Your task to perform on an android device: open app "Google Home" (install if not already installed) Image 0: 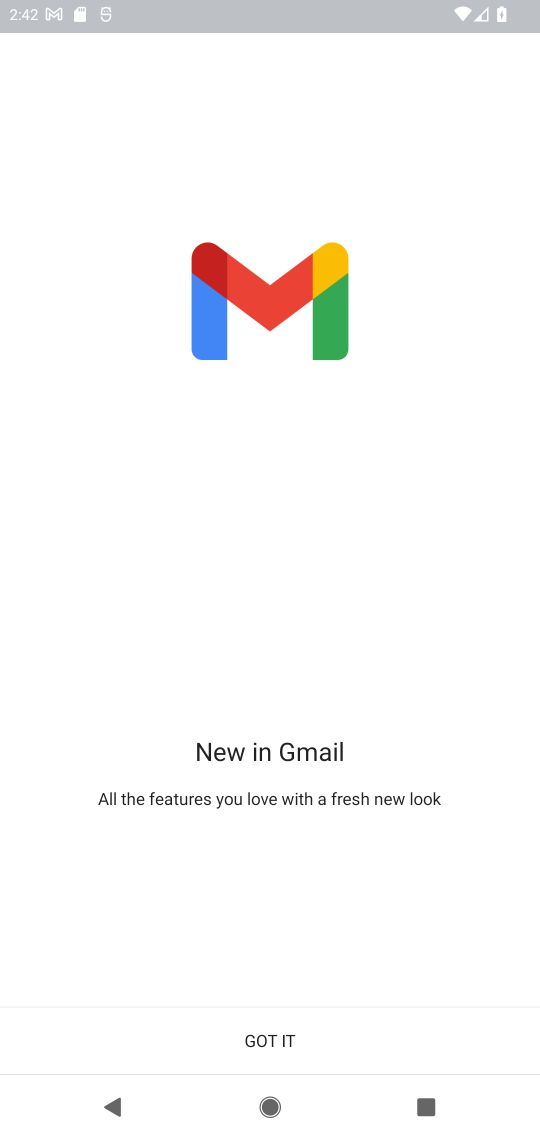
Step 0: press home button
Your task to perform on an android device: open app "Google Home" (install if not already installed) Image 1: 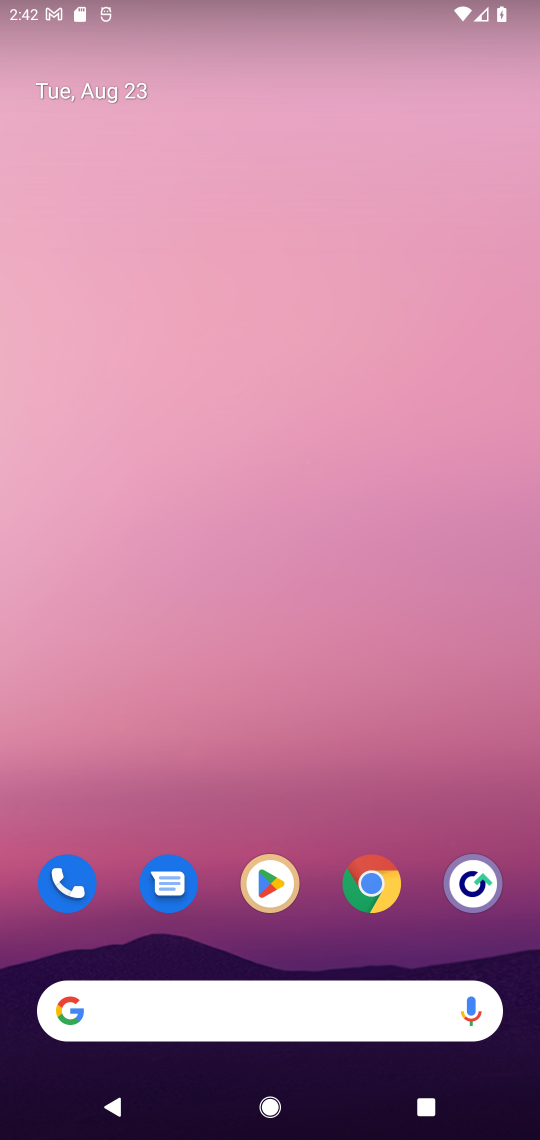
Step 1: drag from (145, 953) to (143, 254)
Your task to perform on an android device: open app "Google Home" (install if not already installed) Image 2: 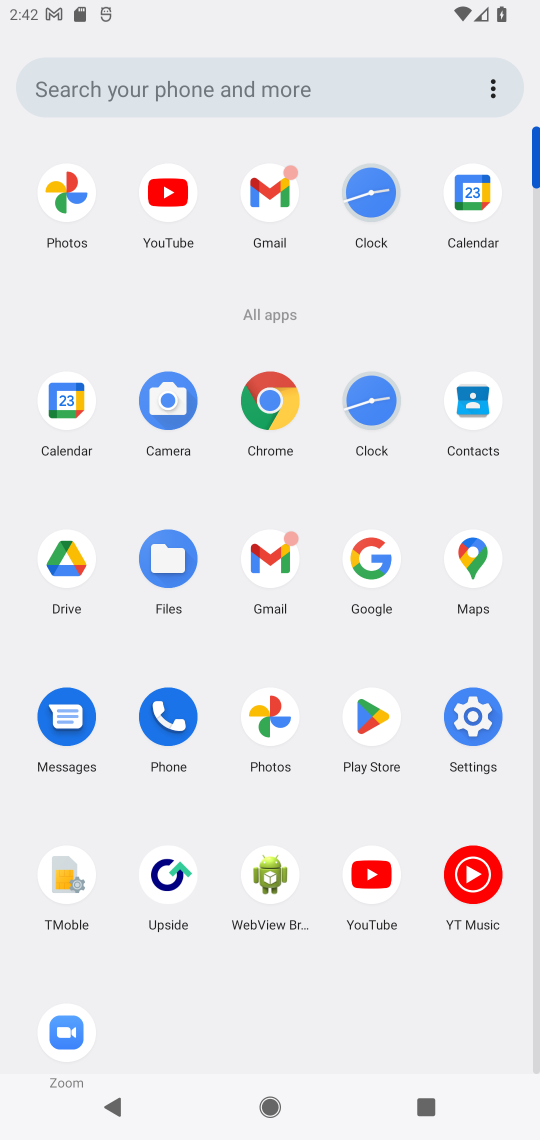
Step 2: click (355, 730)
Your task to perform on an android device: open app "Google Home" (install if not already installed) Image 3: 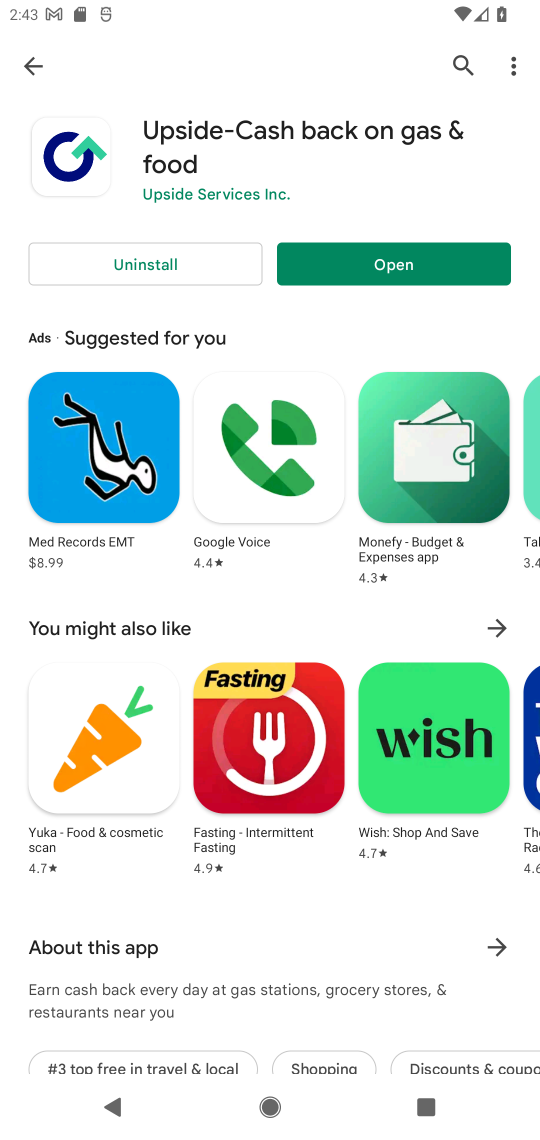
Step 3: click (457, 65)
Your task to perform on an android device: open app "Google Home" (install if not already installed) Image 4: 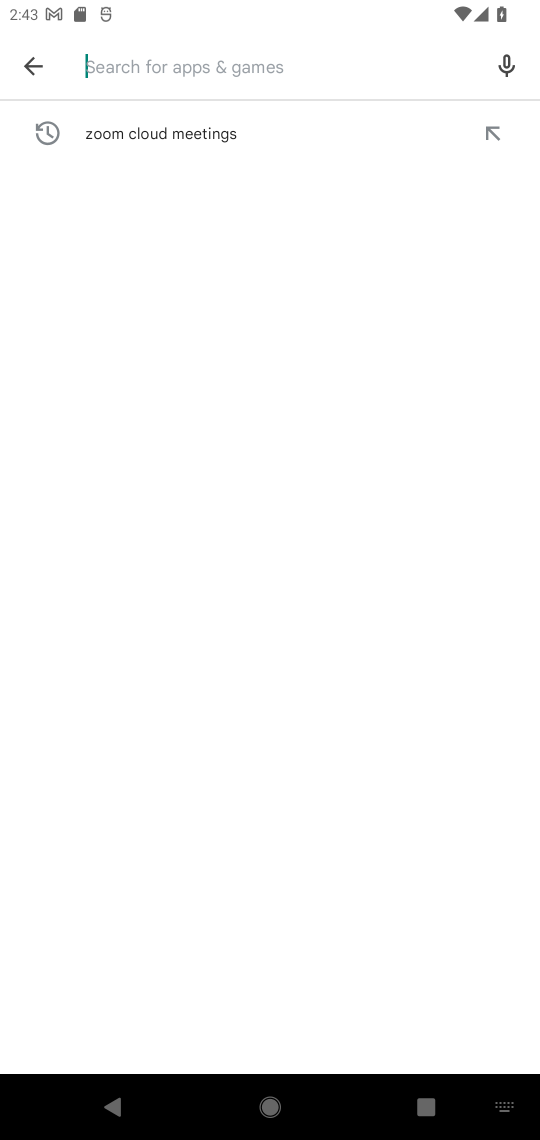
Step 4: type "Google Home"
Your task to perform on an android device: open app "Google Home" (install if not already installed) Image 5: 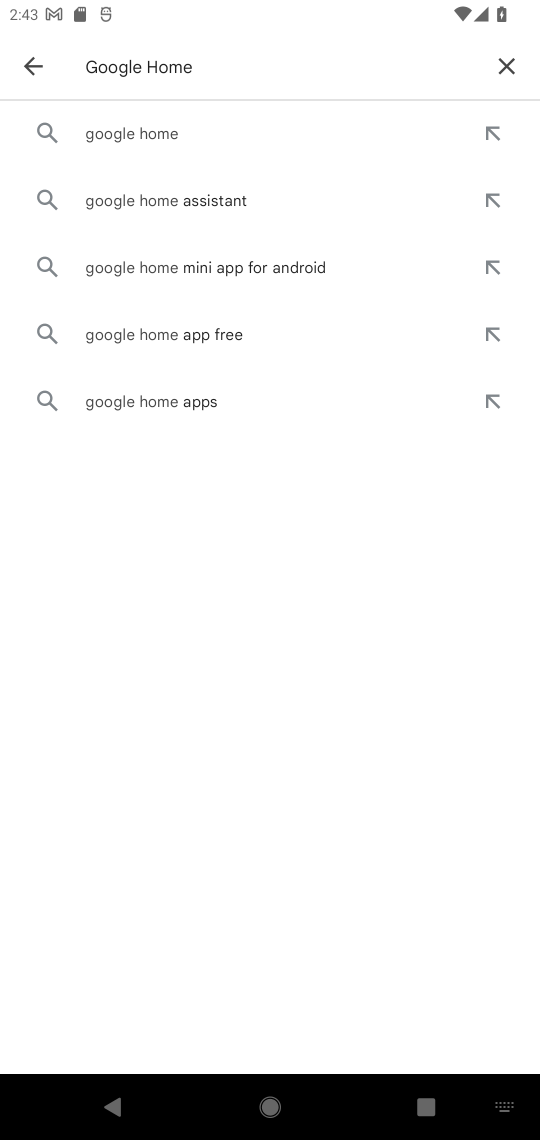
Step 5: click (101, 145)
Your task to perform on an android device: open app "Google Home" (install if not already installed) Image 6: 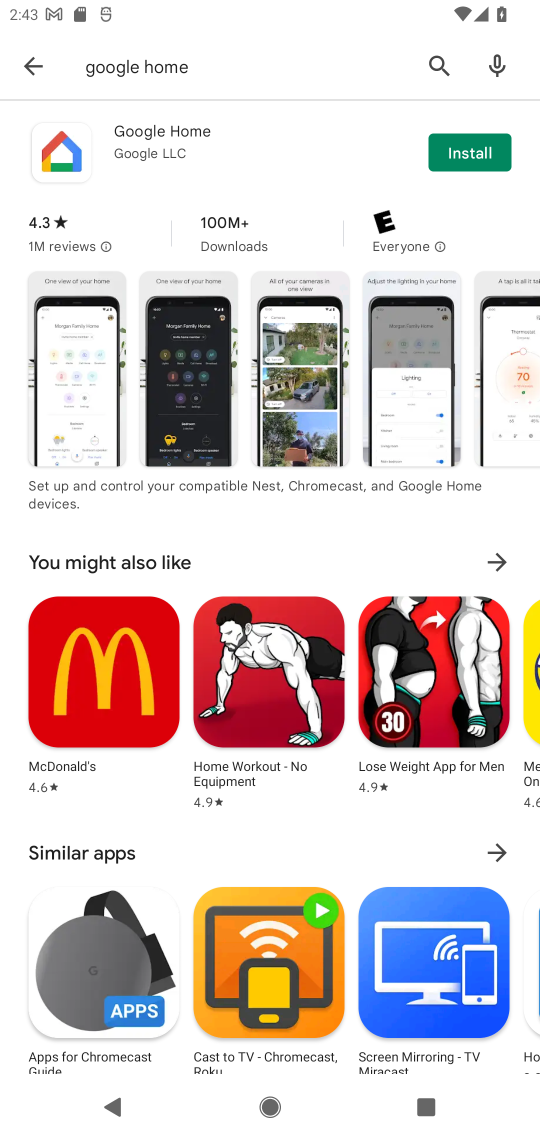
Step 6: click (474, 165)
Your task to perform on an android device: open app "Google Home" (install if not already installed) Image 7: 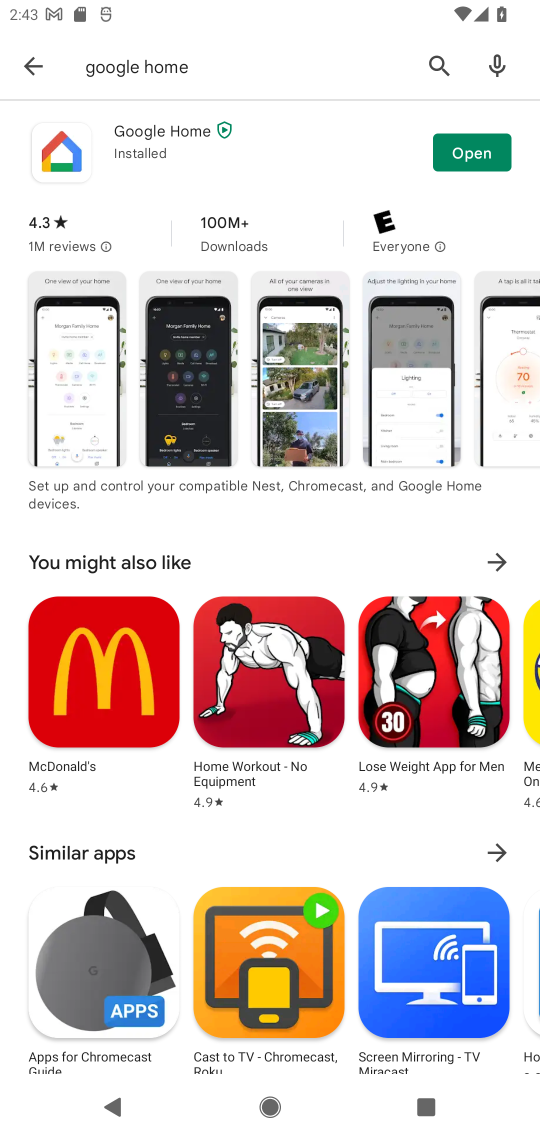
Step 7: click (452, 149)
Your task to perform on an android device: open app "Google Home" (install if not already installed) Image 8: 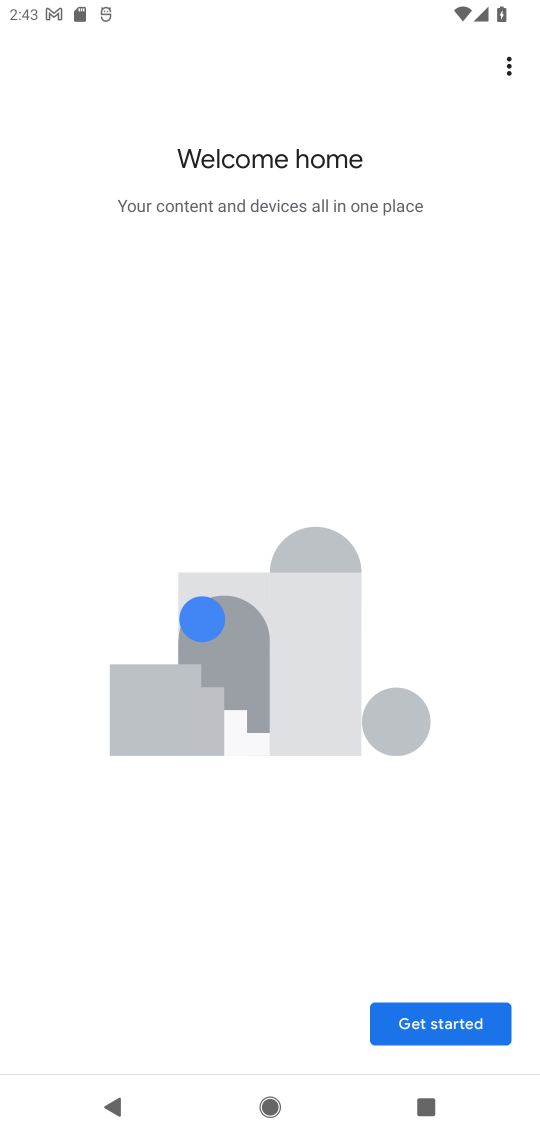
Step 8: task complete